Your task to perform on an android device: see sites visited before in the chrome app Image 0: 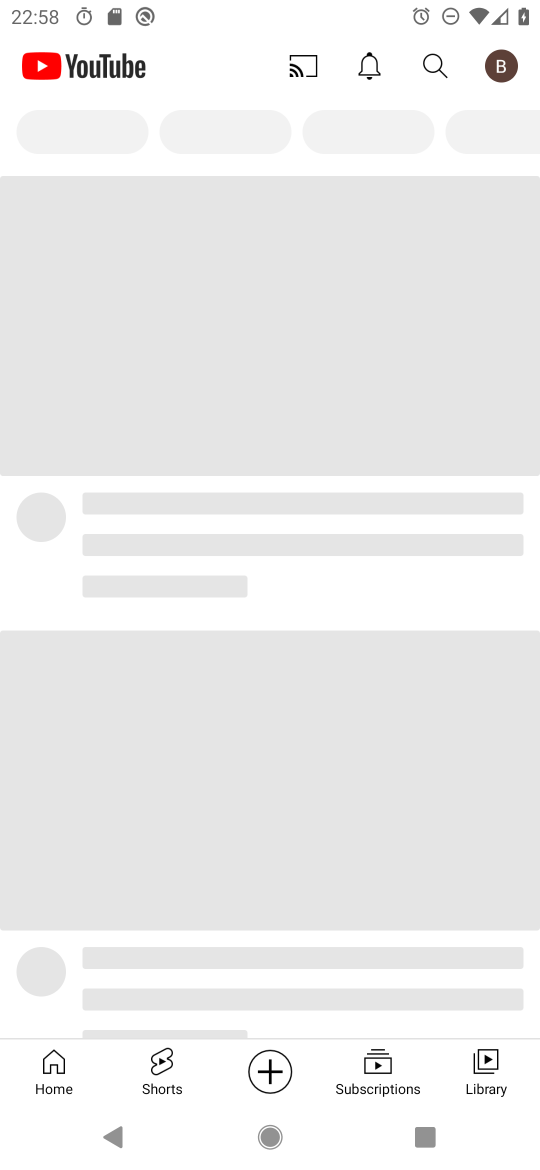
Step 0: click (442, 451)
Your task to perform on an android device: see sites visited before in the chrome app Image 1: 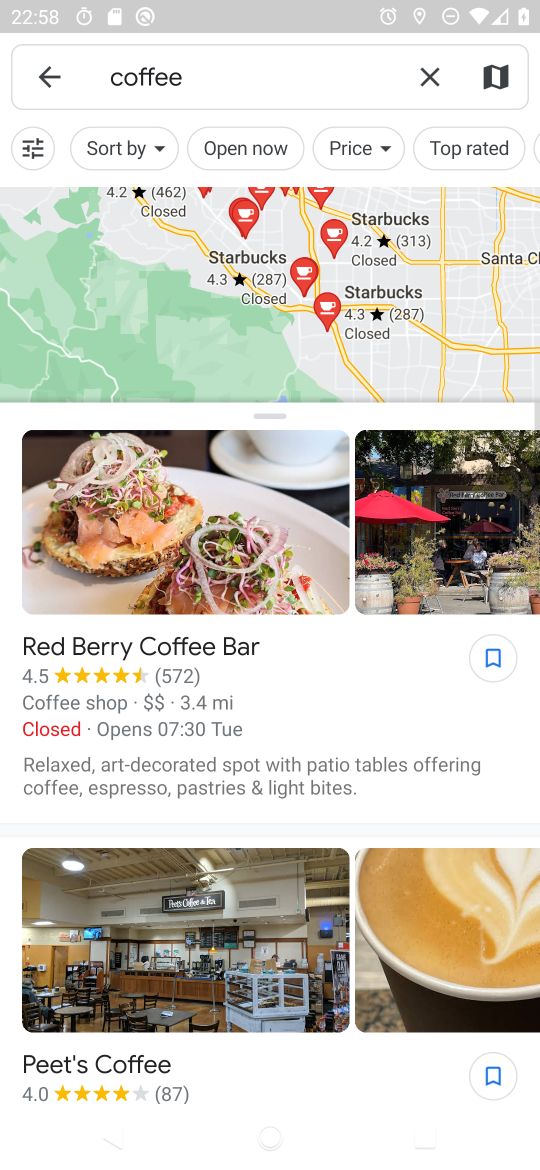
Step 1: drag from (381, 617) to (537, 15)
Your task to perform on an android device: see sites visited before in the chrome app Image 2: 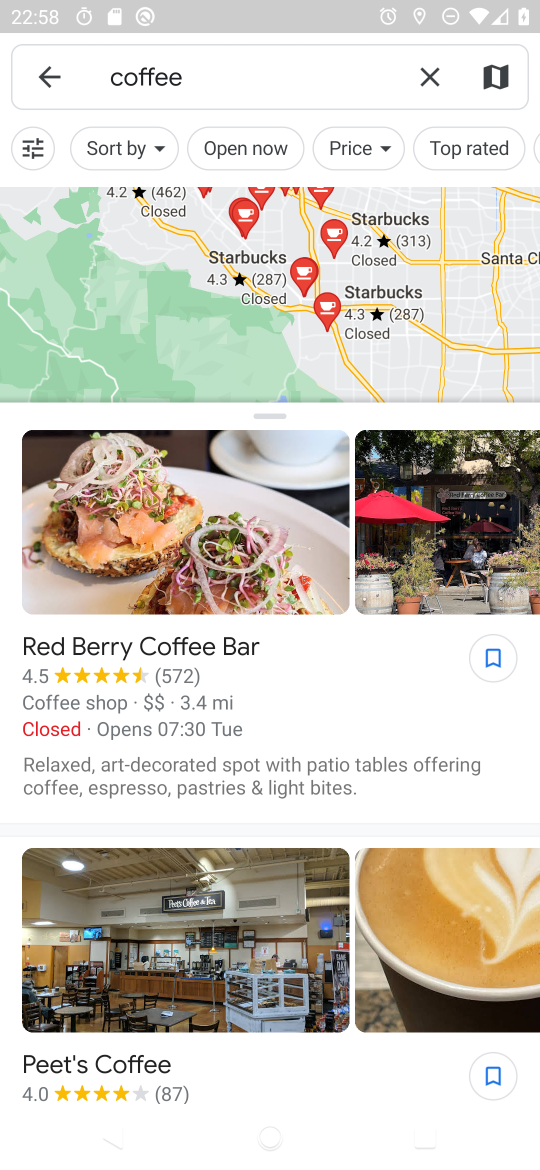
Step 2: press home button
Your task to perform on an android device: see sites visited before in the chrome app Image 3: 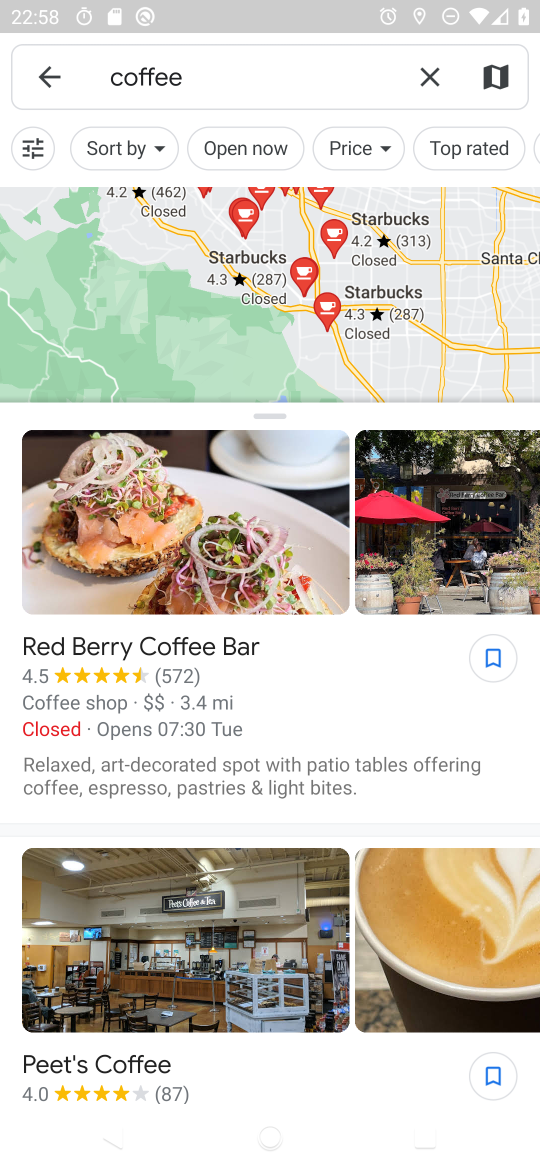
Step 3: click (473, 404)
Your task to perform on an android device: see sites visited before in the chrome app Image 4: 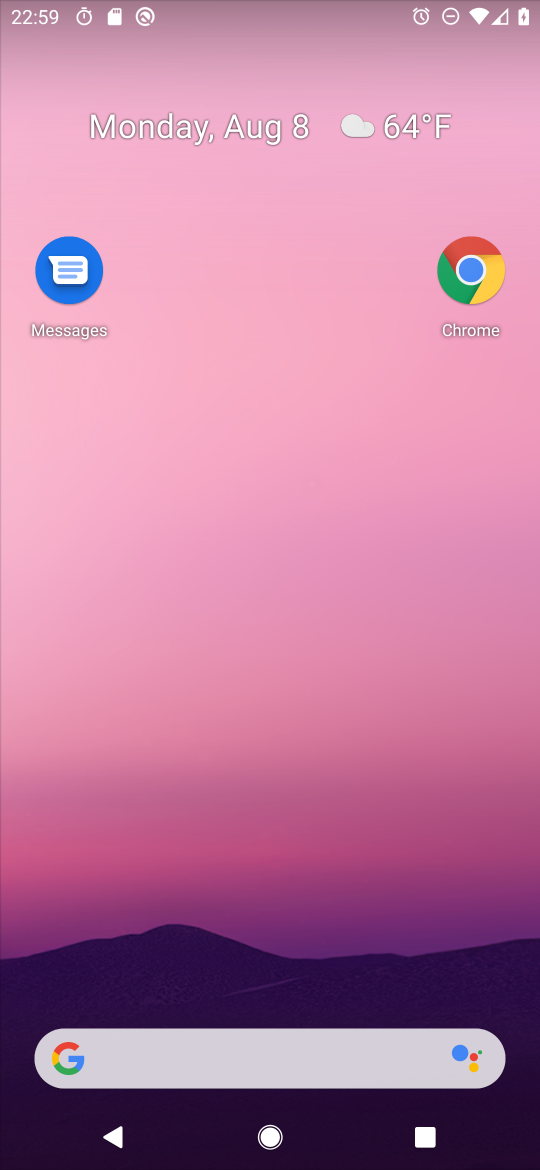
Step 4: drag from (306, 1014) to (531, 839)
Your task to perform on an android device: see sites visited before in the chrome app Image 5: 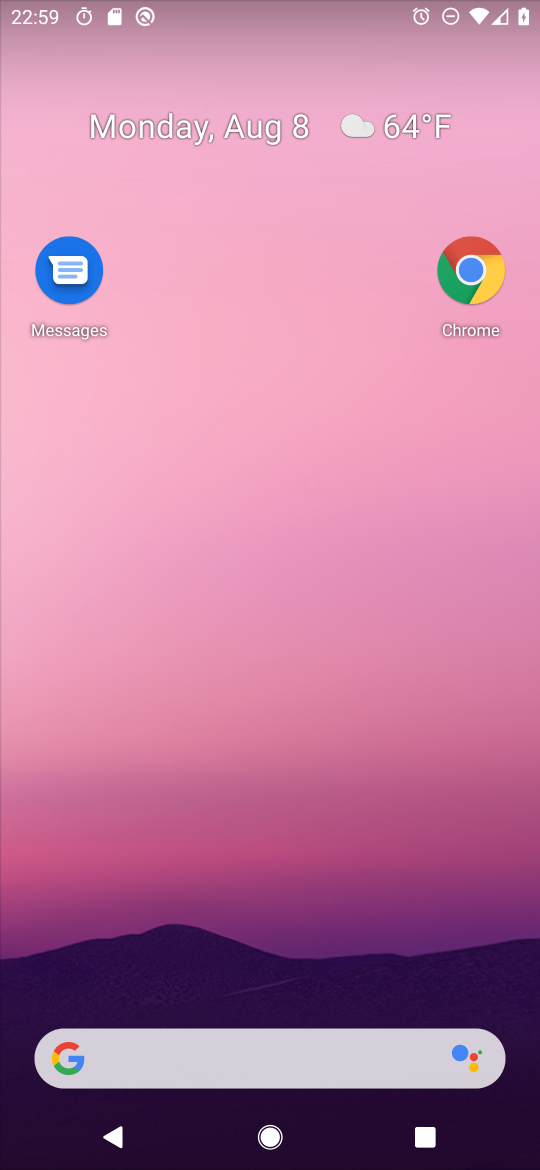
Step 5: drag from (265, 907) to (287, 501)
Your task to perform on an android device: see sites visited before in the chrome app Image 6: 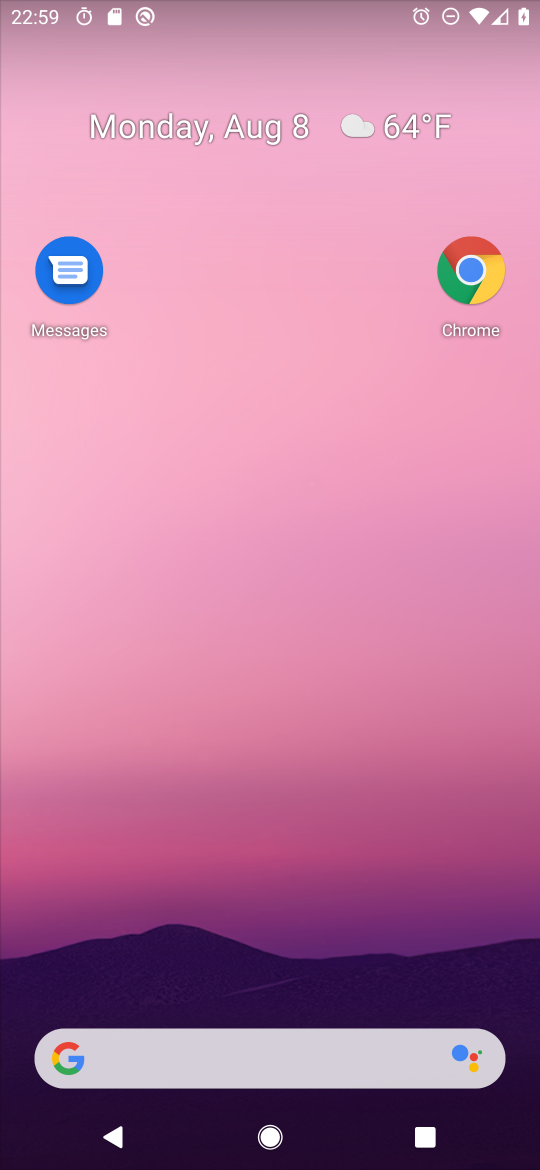
Step 6: click (460, 283)
Your task to perform on an android device: see sites visited before in the chrome app Image 7: 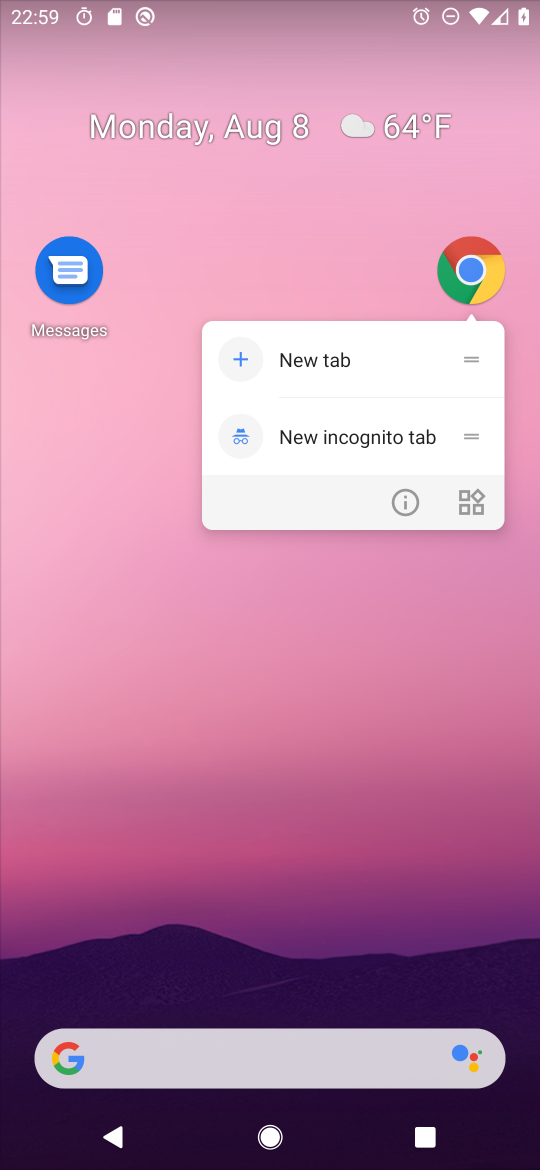
Step 7: click (414, 500)
Your task to perform on an android device: see sites visited before in the chrome app Image 8: 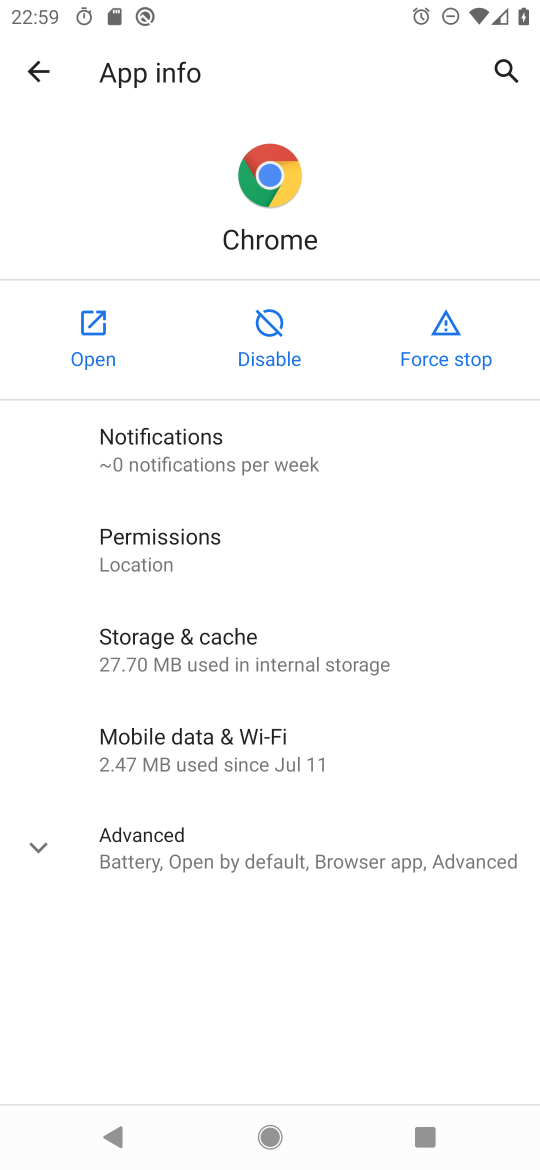
Step 8: click (101, 298)
Your task to perform on an android device: see sites visited before in the chrome app Image 9: 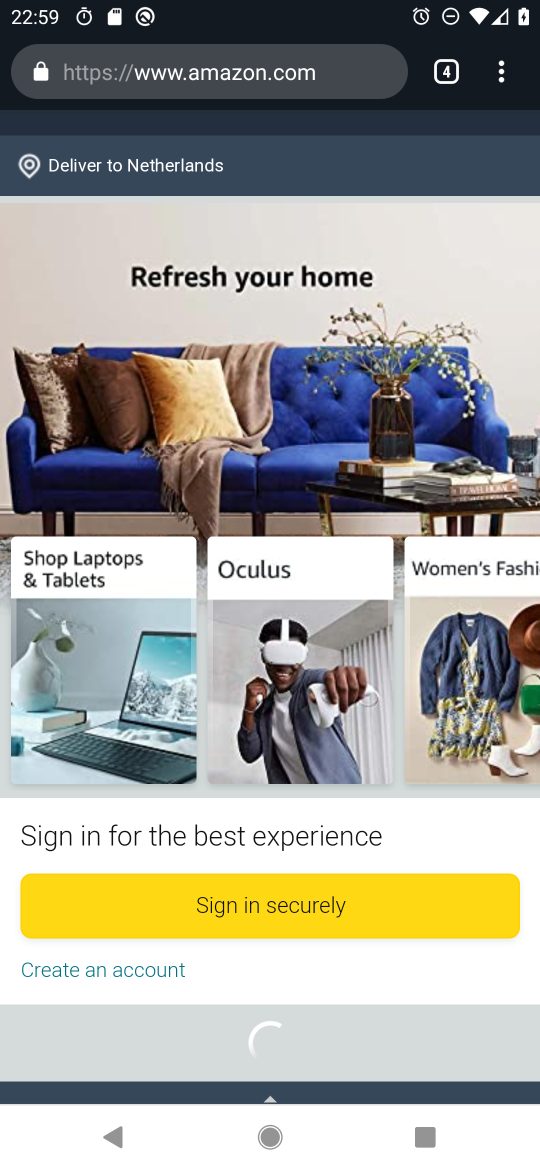
Step 9: task complete